Your task to perform on an android device: empty trash in the gmail app Image 0: 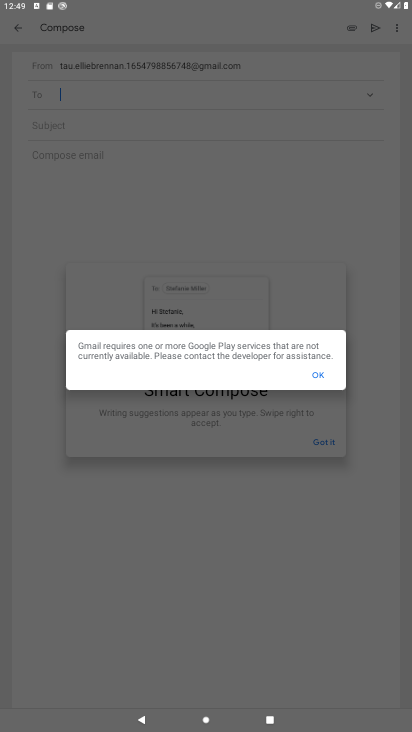
Step 0: press home button
Your task to perform on an android device: empty trash in the gmail app Image 1: 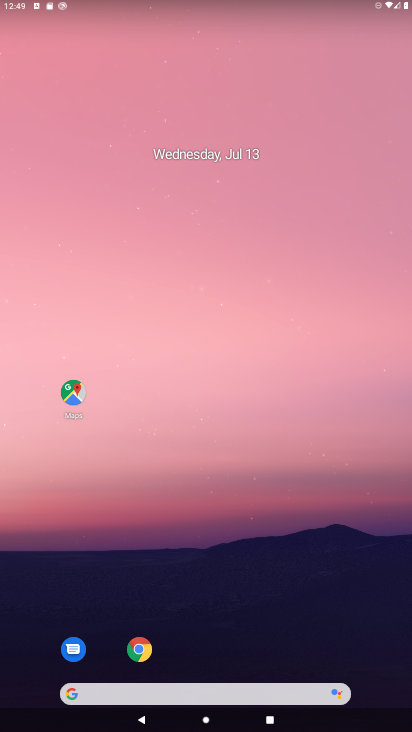
Step 1: drag from (363, 630) to (333, 112)
Your task to perform on an android device: empty trash in the gmail app Image 2: 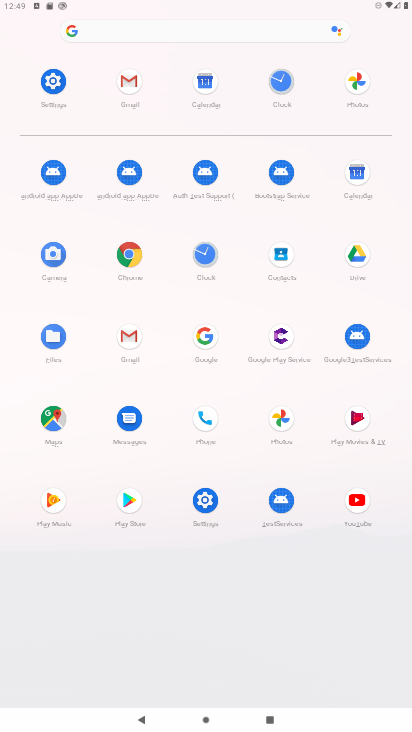
Step 2: click (126, 331)
Your task to perform on an android device: empty trash in the gmail app Image 3: 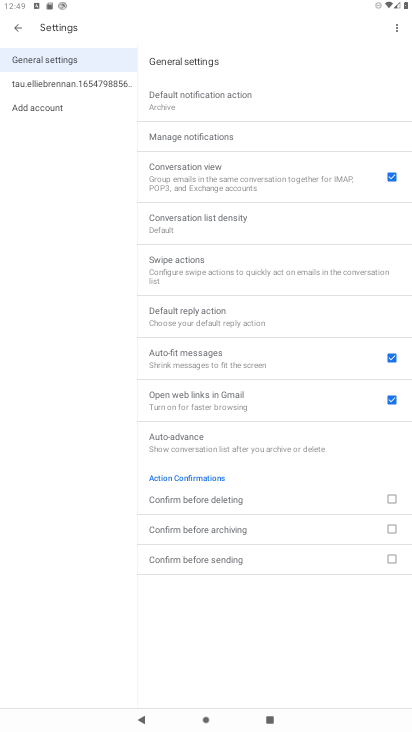
Step 3: press back button
Your task to perform on an android device: empty trash in the gmail app Image 4: 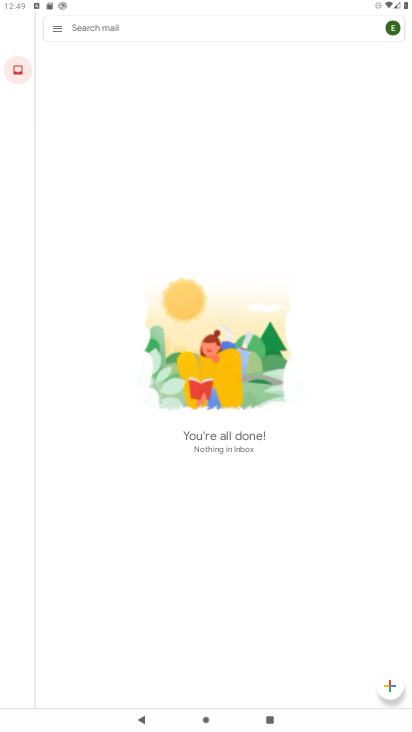
Step 4: click (56, 29)
Your task to perform on an android device: empty trash in the gmail app Image 5: 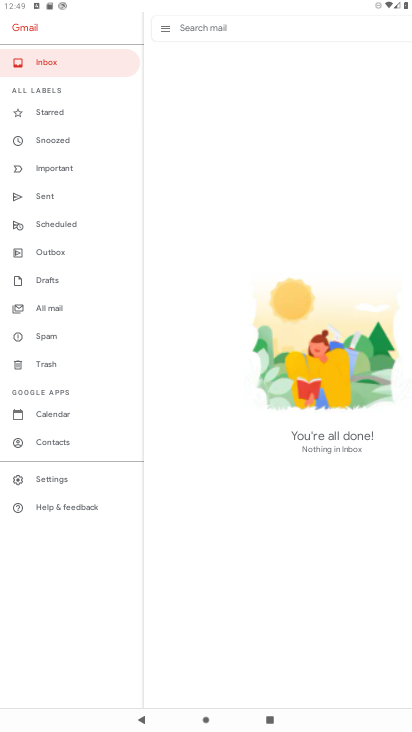
Step 5: click (40, 363)
Your task to perform on an android device: empty trash in the gmail app Image 6: 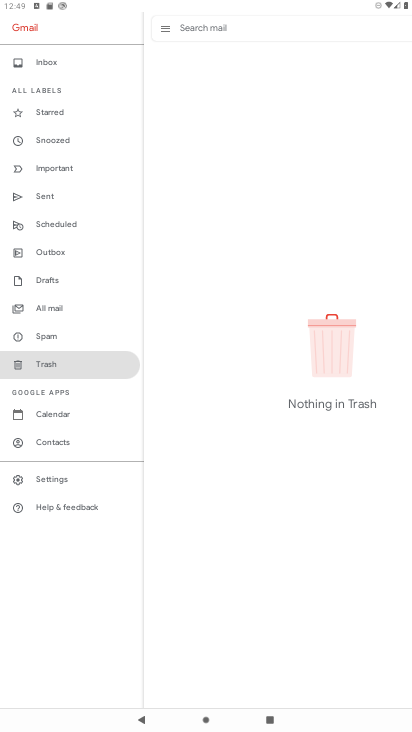
Step 6: task complete